Your task to perform on an android device: What's the weather going to be this weekend? Image 0: 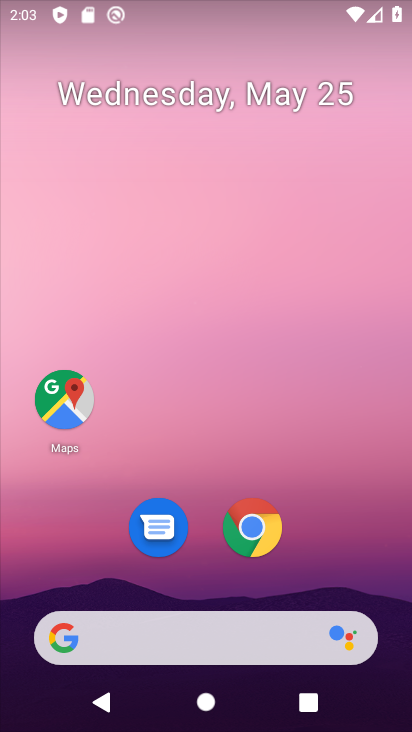
Step 0: click (307, 247)
Your task to perform on an android device: What's the weather going to be this weekend? Image 1: 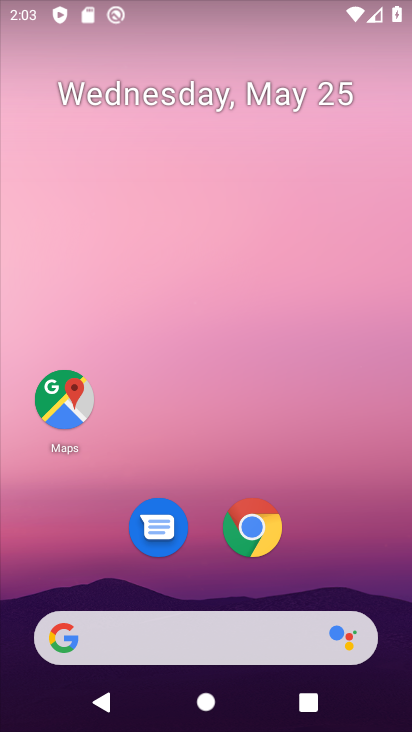
Step 1: drag from (216, 561) to (263, 243)
Your task to perform on an android device: What's the weather going to be this weekend? Image 2: 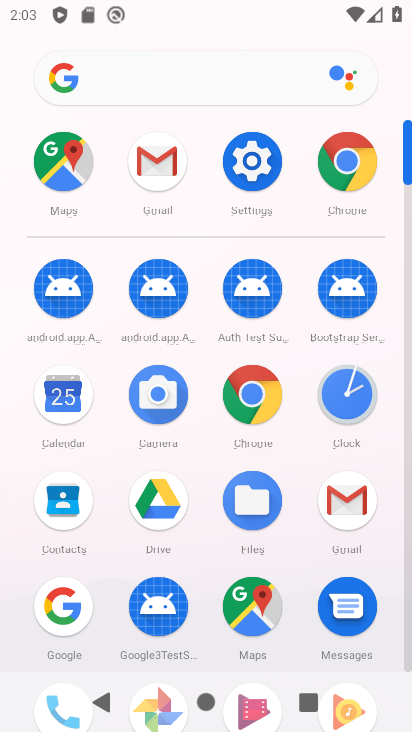
Step 2: click (203, 77)
Your task to perform on an android device: What's the weather going to be this weekend? Image 3: 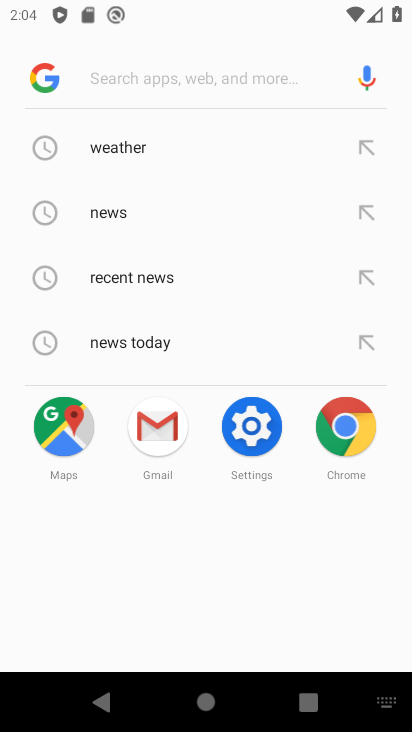
Step 3: type "weather going to be this weekend?"
Your task to perform on an android device: What's the weather going to be this weekend? Image 4: 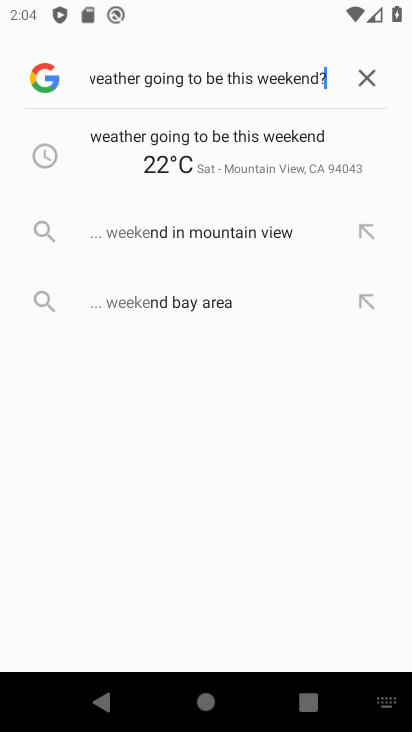
Step 4: type ""
Your task to perform on an android device: What's the weather going to be this weekend? Image 5: 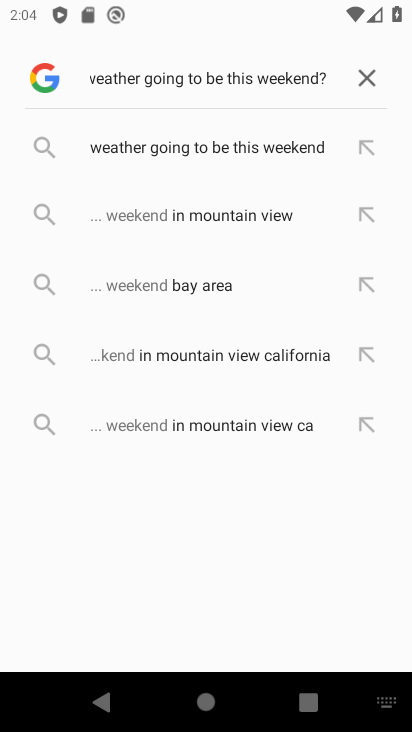
Step 5: click (164, 157)
Your task to perform on an android device: What's the weather going to be this weekend? Image 6: 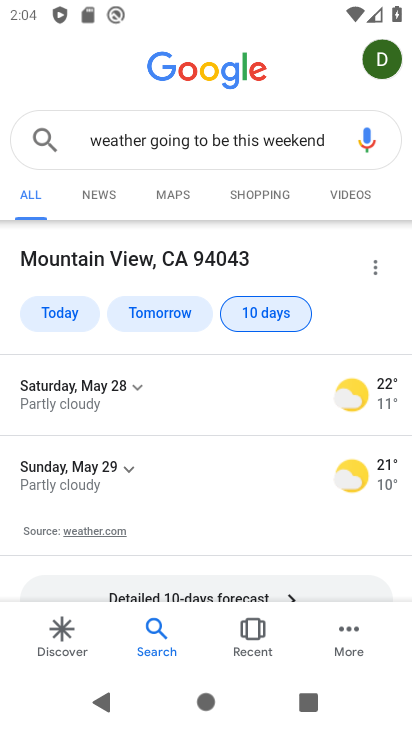
Step 6: task complete